Your task to perform on an android device: delete location history Image 0: 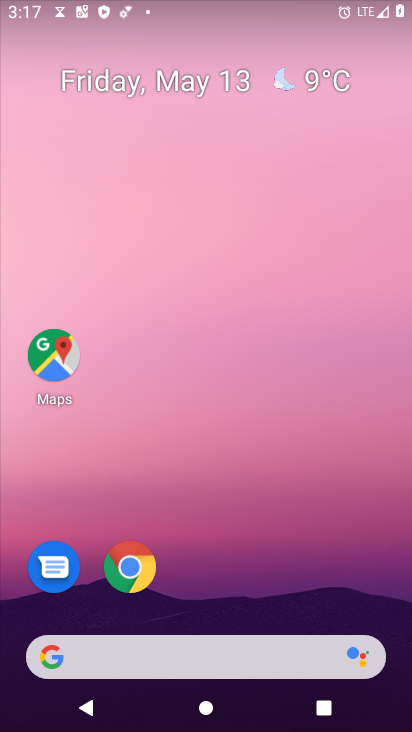
Step 0: click (49, 363)
Your task to perform on an android device: delete location history Image 1: 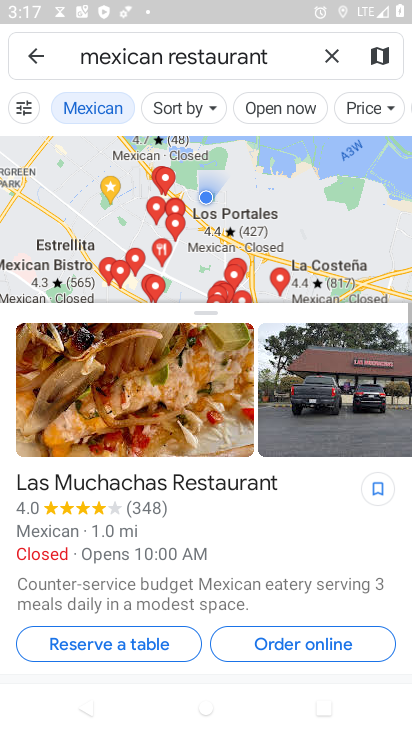
Step 1: click (327, 52)
Your task to perform on an android device: delete location history Image 2: 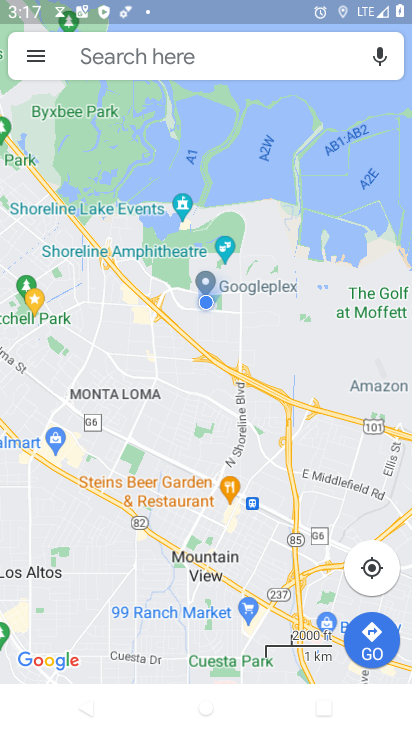
Step 2: click (41, 54)
Your task to perform on an android device: delete location history Image 3: 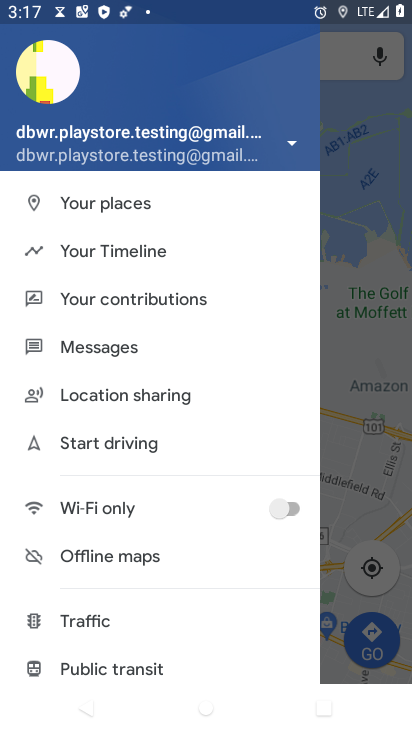
Step 3: click (137, 249)
Your task to perform on an android device: delete location history Image 4: 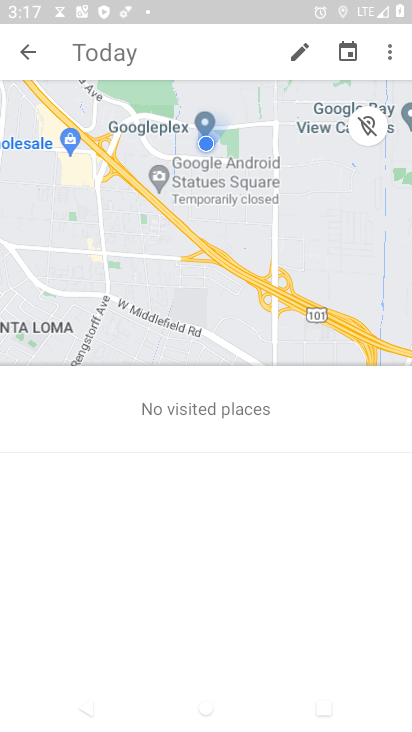
Step 4: click (388, 51)
Your task to perform on an android device: delete location history Image 5: 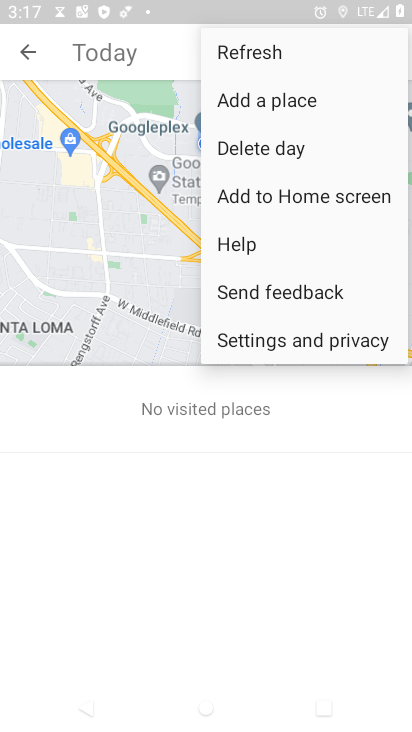
Step 5: click (251, 344)
Your task to perform on an android device: delete location history Image 6: 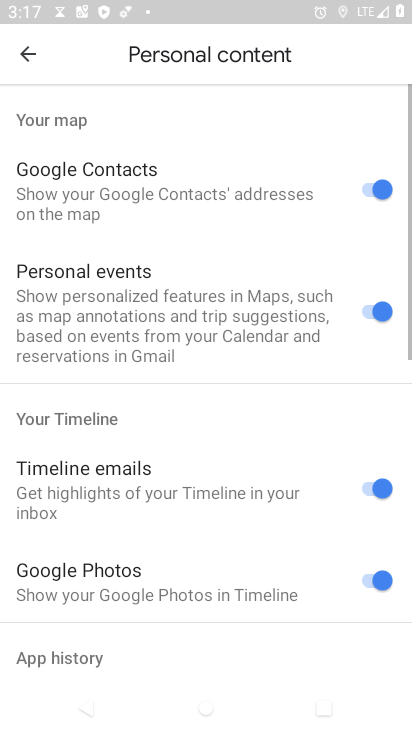
Step 6: drag from (159, 542) to (184, 130)
Your task to perform on an android device: delete location history Image 7: 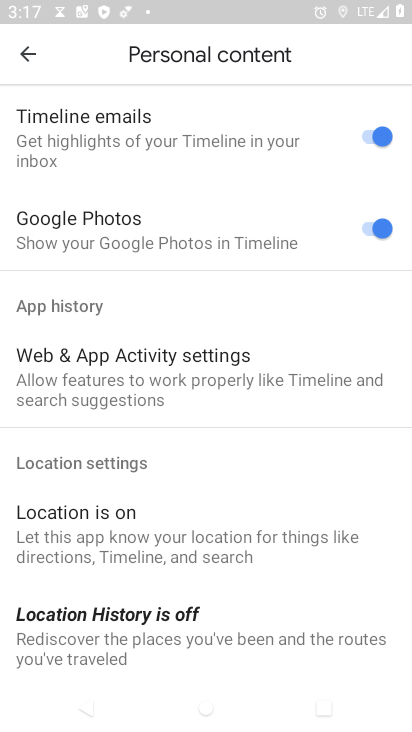
Step 7: drag from (137, 485) to (141, 163)
Your task to perform on an android device: delete location history Image 8: 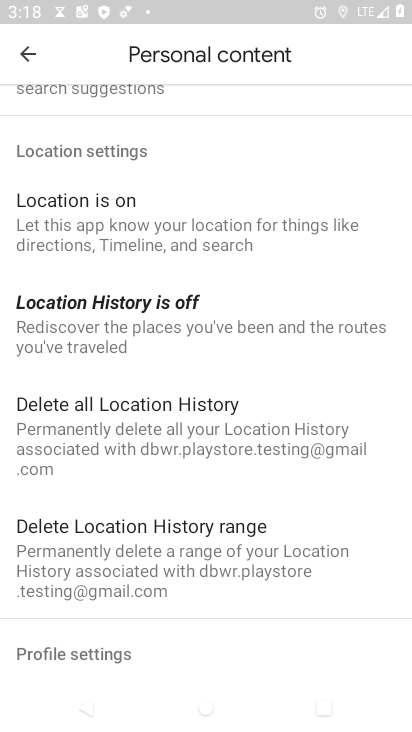
Step 8: click (115, 435)
Your task to perform on an android device: delete location history Image 9: 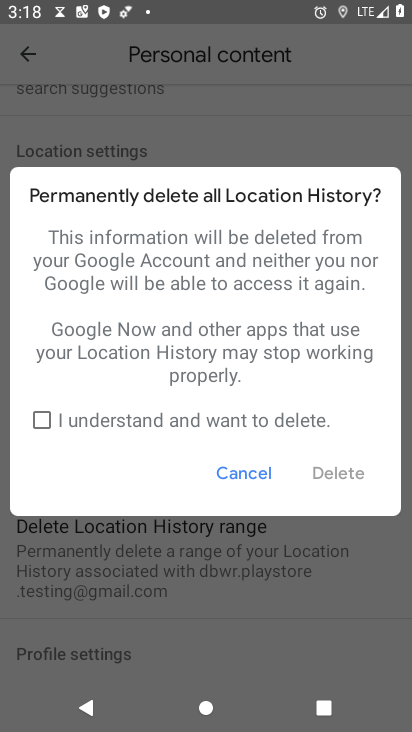
Step 9: click (33, 421)
Your task to perform on an android device: delete location history Image 10: 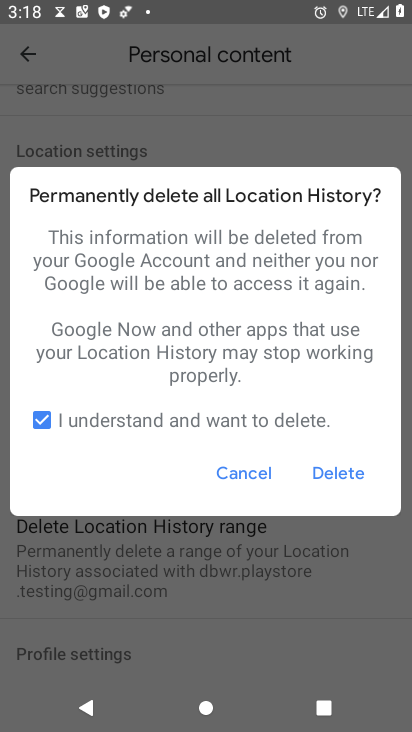
Step 10: click (339, 468)
Your task to perform on an android device: delete location history Image 11: 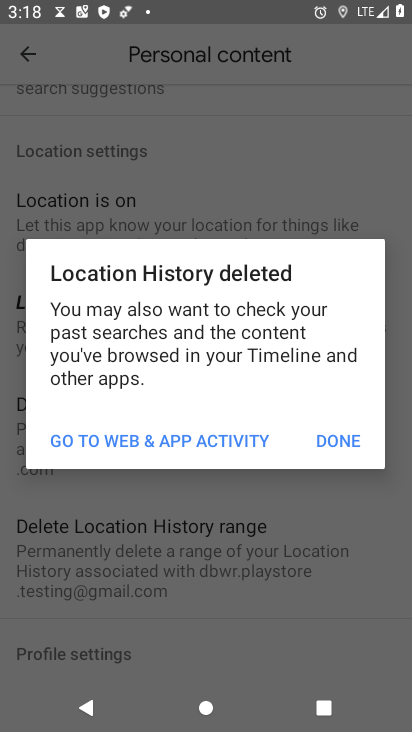
Step 11: click (348, 442)
Your task to perform on an android device: delete location history Image 12: 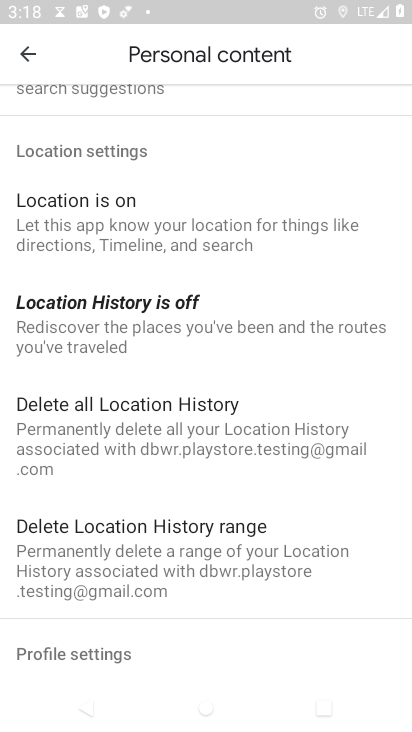
Step 12: task complete